Your task to perform on an android device: What is the recent news? Image 0: 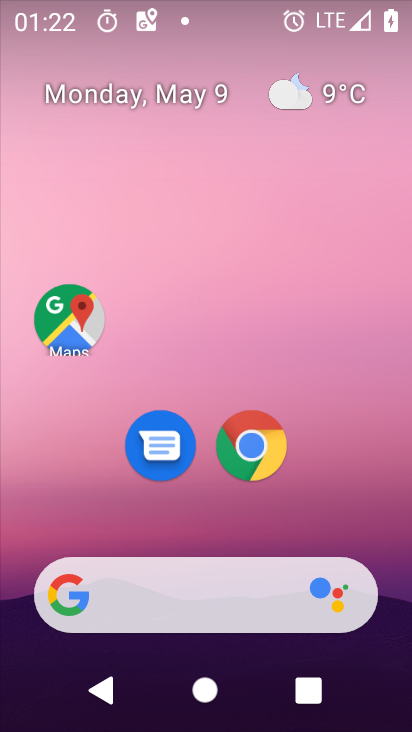
Step 0: drag from (10, 229) to (408, 290)
Your task to perform on an android device: What is the recent news? Image 1: 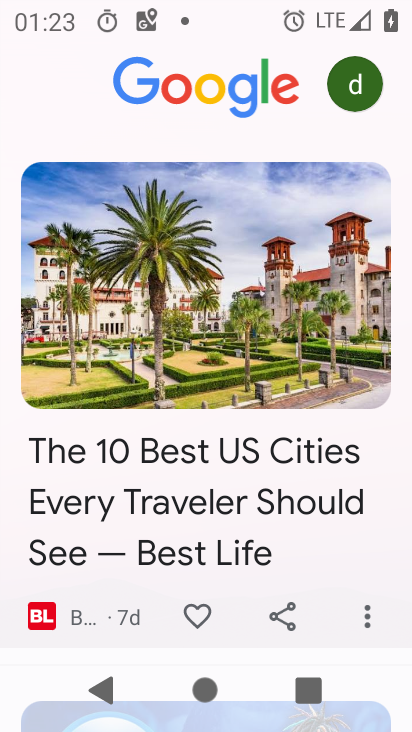
Step 1: task complete